Your task to perform on an android device: change notification settings in the gmail app Image 0: 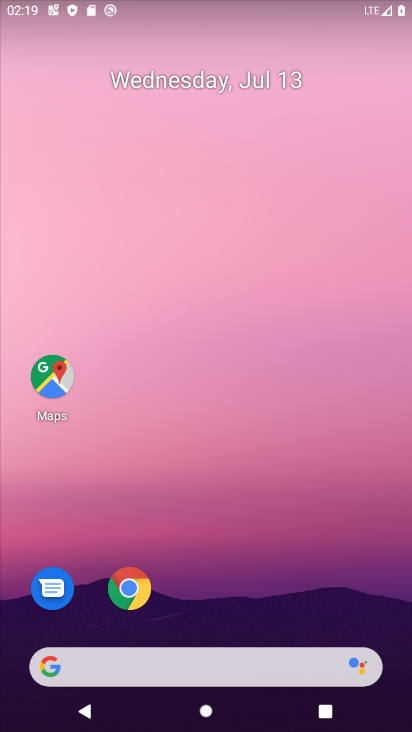
Step 0: drag from (401, 703) to (337, 157)
Your task to perform on an android device: change notification settings in the gmail app Image 1: 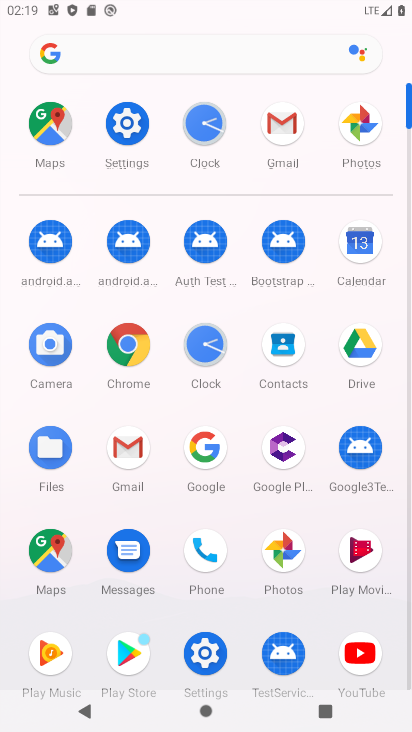
Step 1: click (109, 443)
Your task to perform on an android device: change notification settings in the gmail app Image 2: 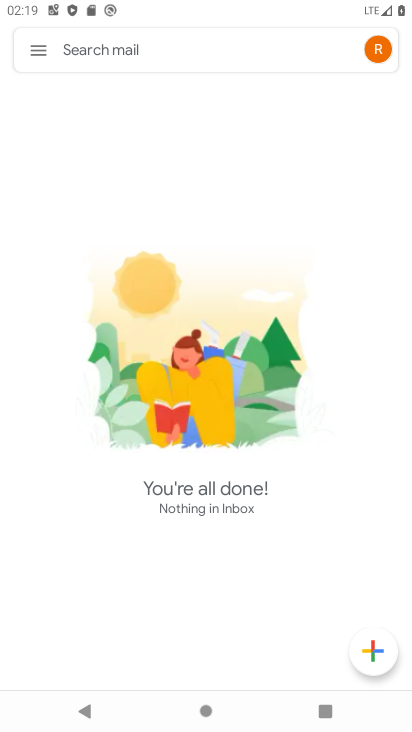
Step 2: click (36, 44)
Your task to perform on an android device: change notification settings in the gmail app Image 3: 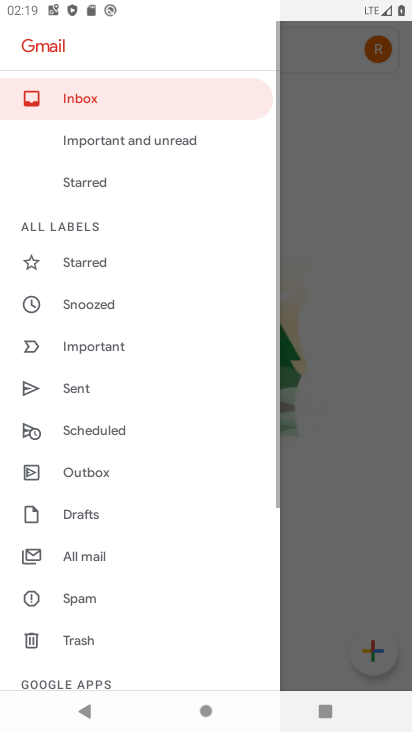
Step 3: drag from (166, 579) to (184, 219)
Your task to perform on an android device: change notification settings in the gmail app Image 4: 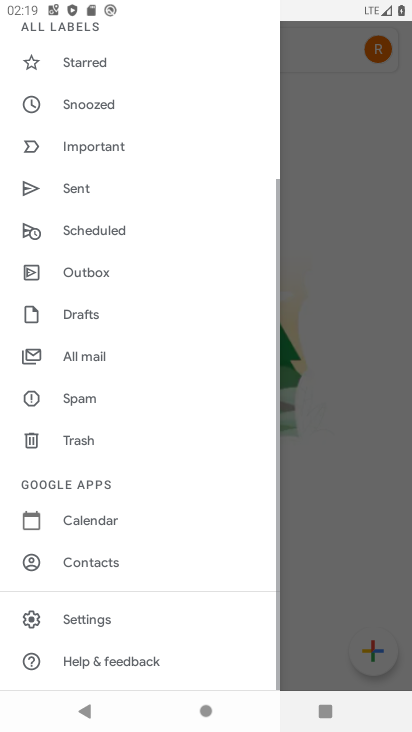
Step 4: click (85, 619)
Your task to perform on an android device: change notification settings in the gmail app Image 5: 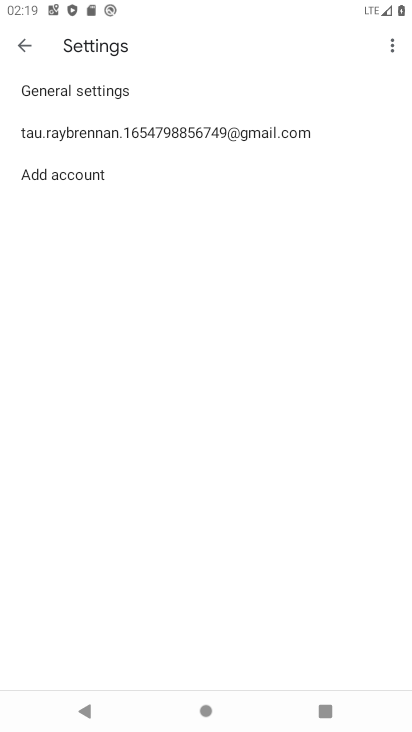
Step 5: click (49, 134)
Your task to perform on an android device: change notification settings in the gmail app Image 6: 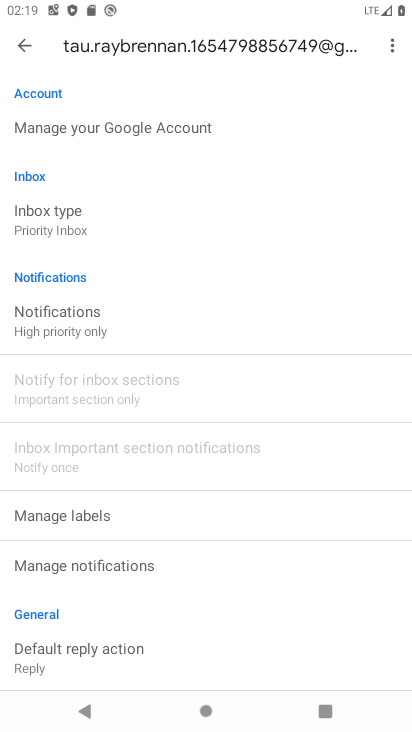
Step 6: click (44, 311)
Your task to perform on an android device: change notification settings in the gmail app Image 7: 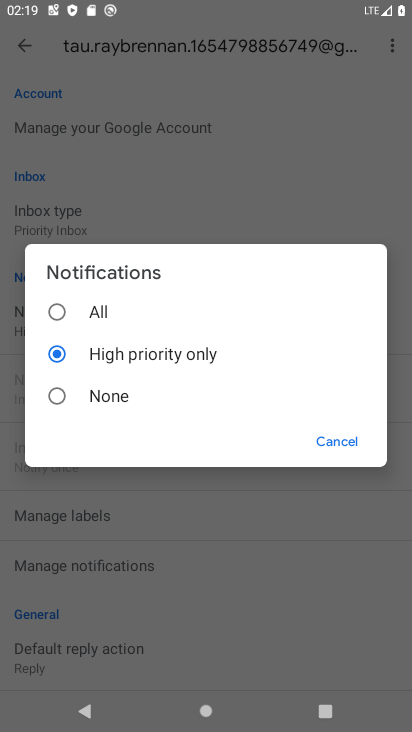
Step 7: click (61, 311)
Your task to perform on an android device: change notification settings in the gmail app Image 8: 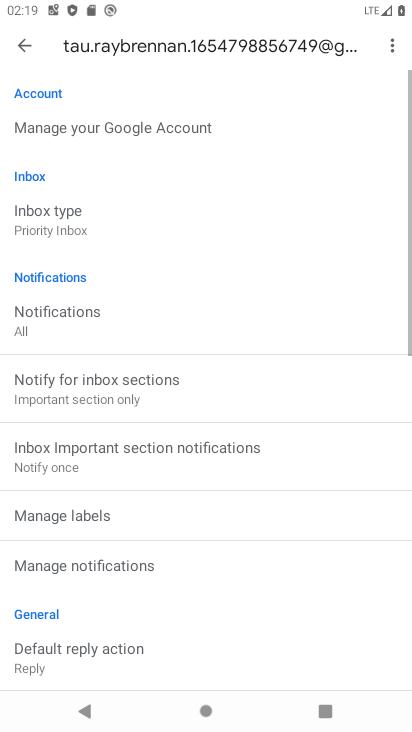
Step 8: task complete